Your task to perform on an android device: turn pop-ups on in chrome Image 0: 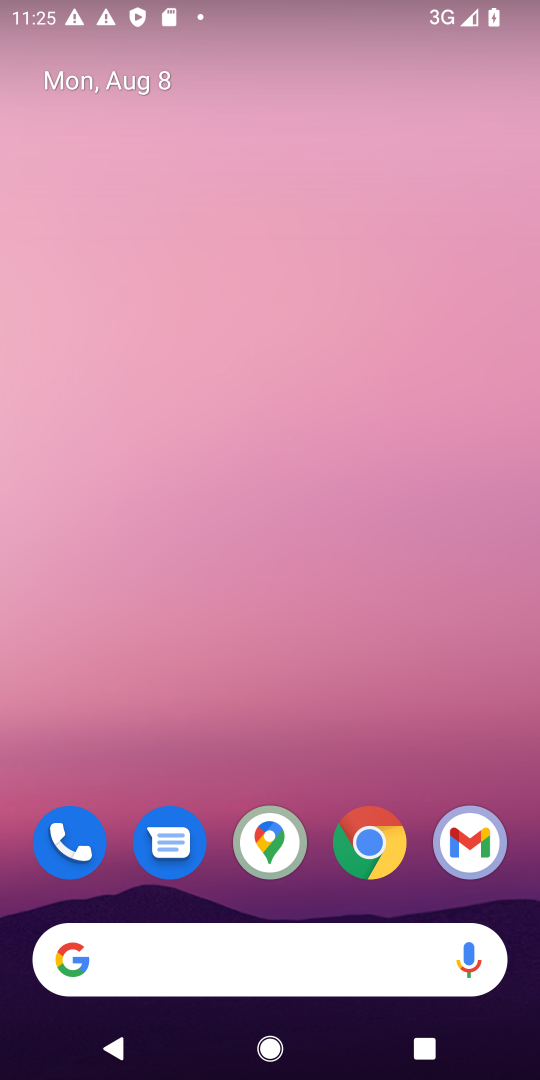
Step 0: click (347, 824)
Your task to perform on an android device: turn pop-ups on in chrome Image 1: 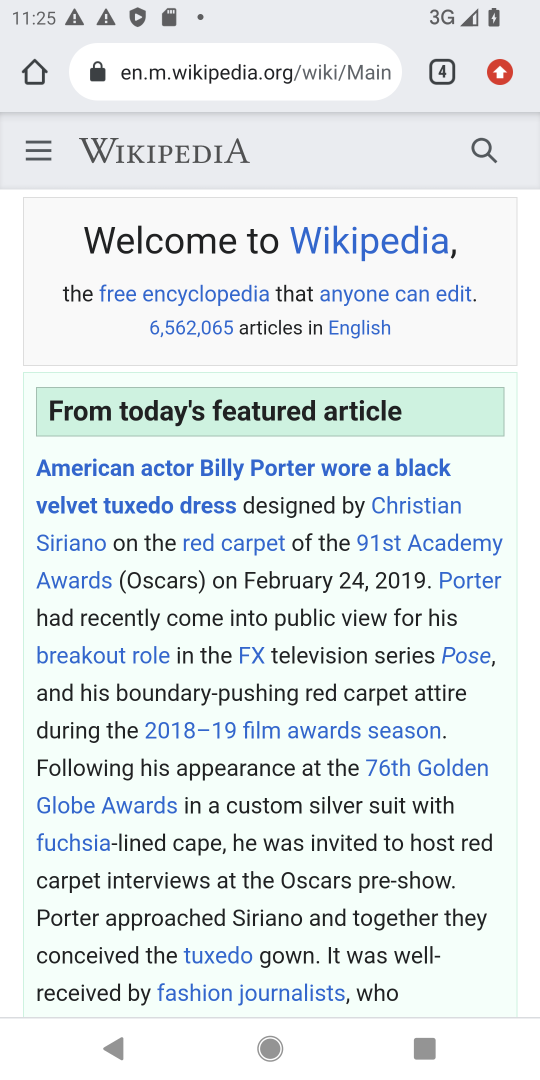
Step 1: click (493, 79)
Your task to perform on an android device: turn pop-ups on in chrome Image 2: 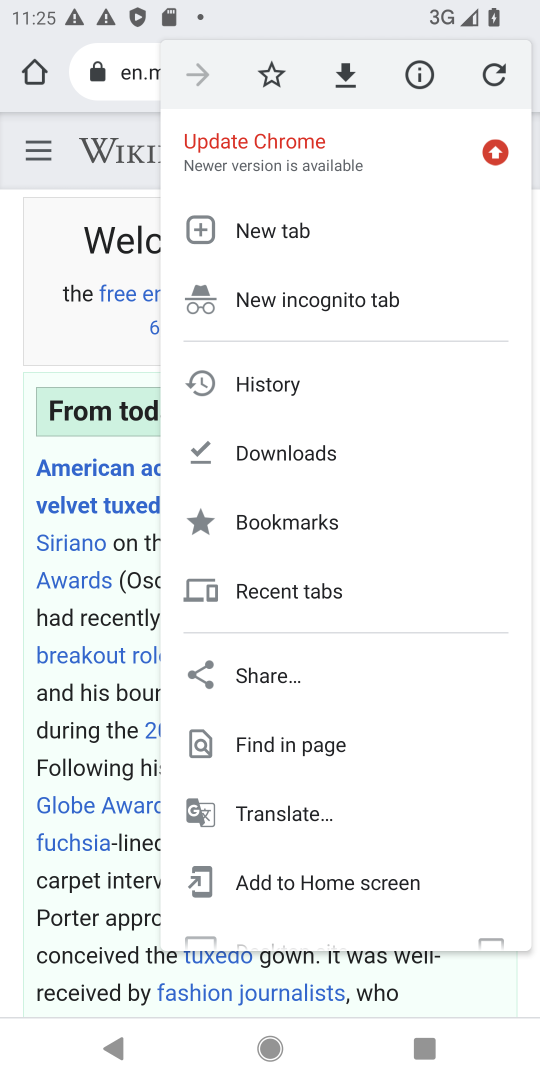
Step 2: drag from (420, 703) to (448, 471)
Your task to perform on an android device: turn pop-ups on in chrome Image 3: 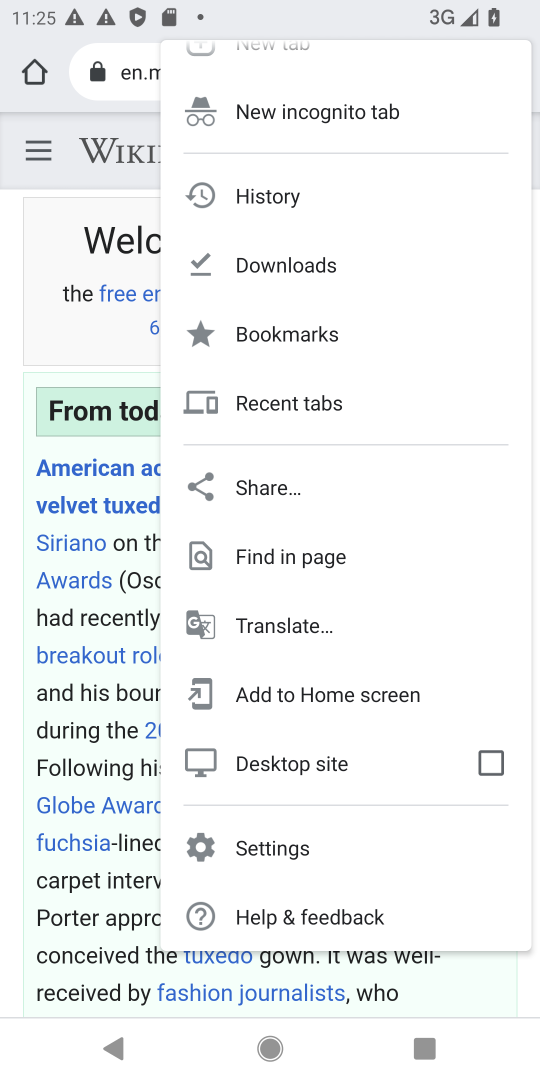
Step 3: click (291, 844)
Your task to perform on an android device: turn pop-ups on in chrome Image 4: 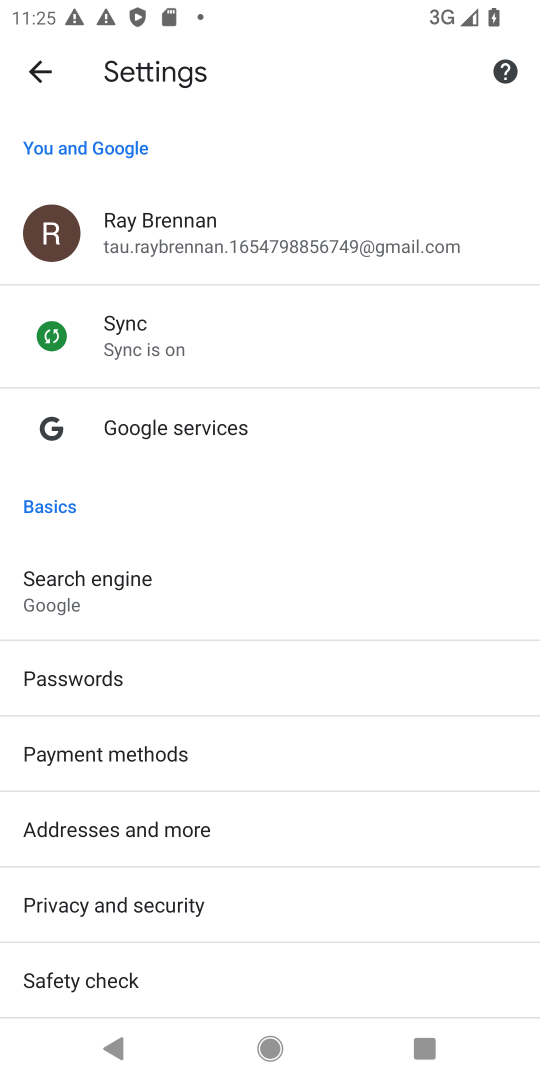
Step 4: drag from (230, 507) to (212, 142)
Your task to perform on an android device: turn pop-ups on in chrome Image 5: 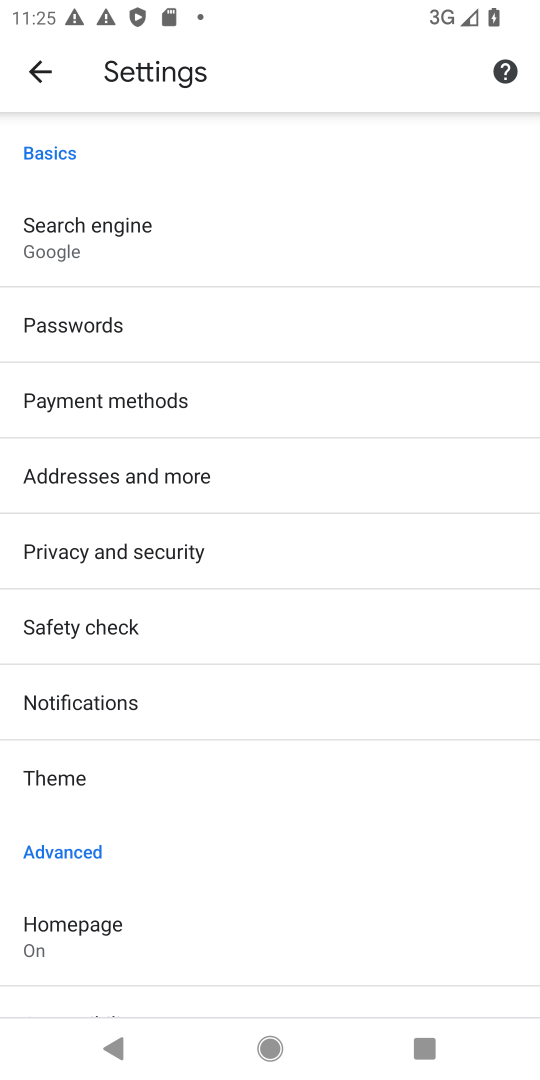
Step 5: drag from (335, 813) to (431, 181)
Your task to perform on an android device: turn pop-ups on in chrome Image 6: 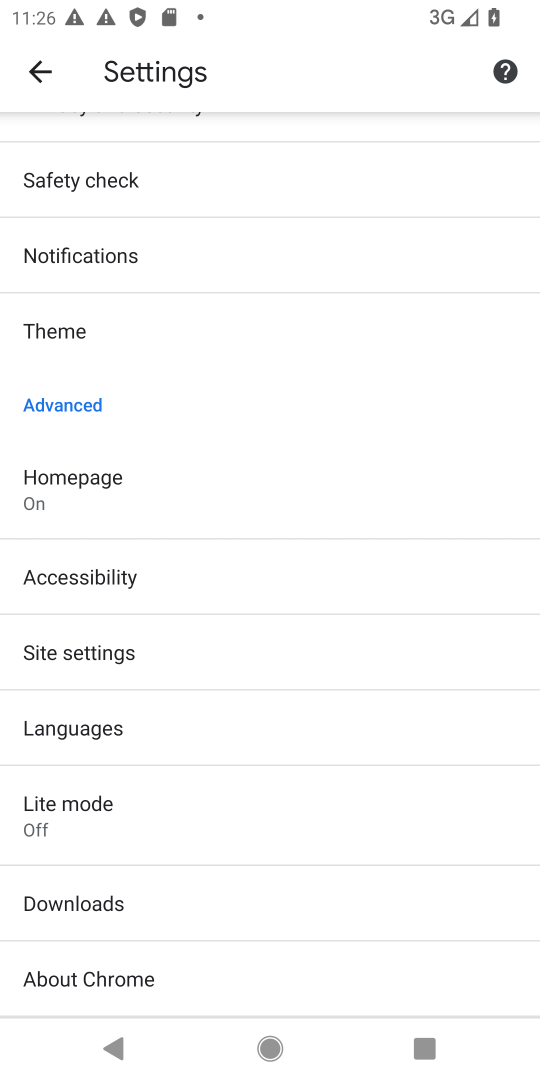
Step 6: click (45, 649)
Your task to perform on an android device: turn pop-ups on in chrome Image 7: 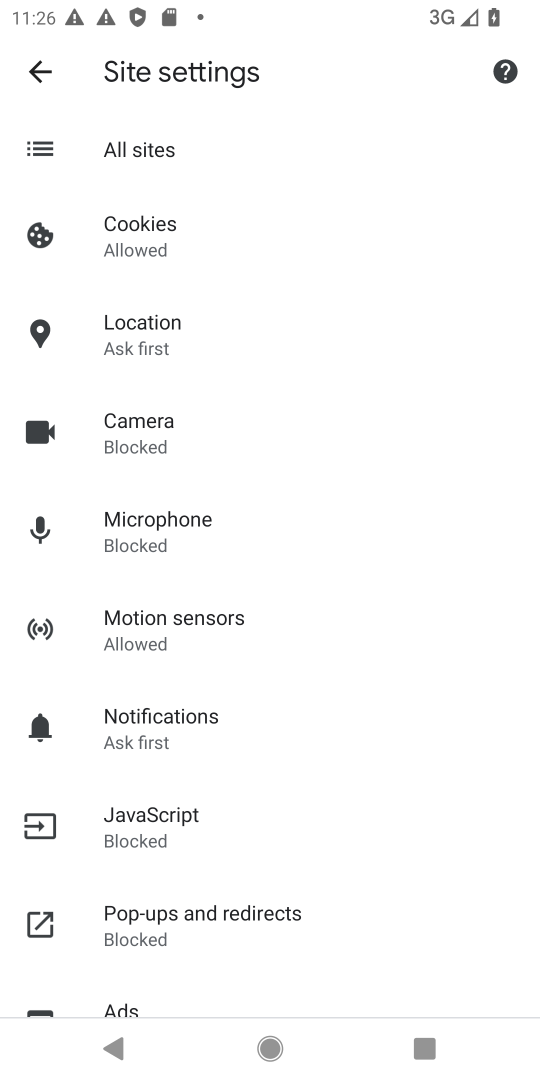
Step 7: click (229, 905)
Your task to perform on an android device: turn pop-ups on in chrome Image 8: 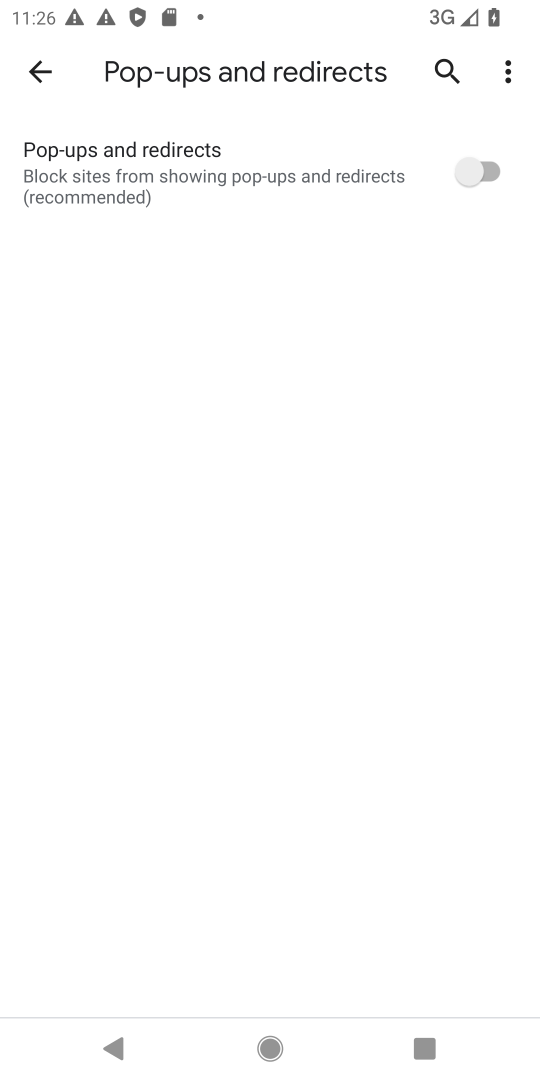
Step 8: click (472, 167)
Your task to perform on an android device: turn pop-ups on in chrome Image 9: 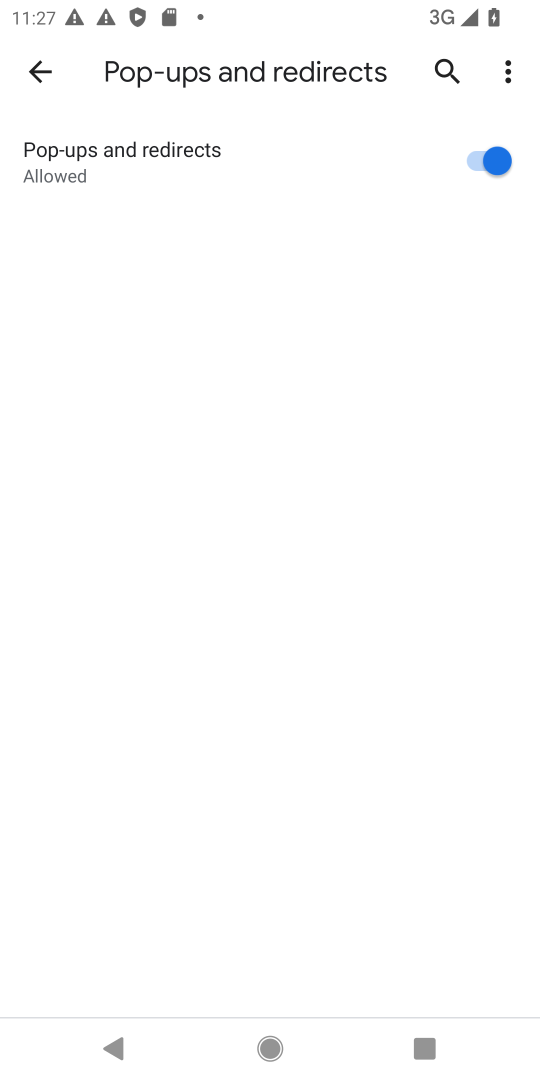
Step 9: task complete